Your task to perform on an android device: see tabs open on other devices in the chrome app Image 0: 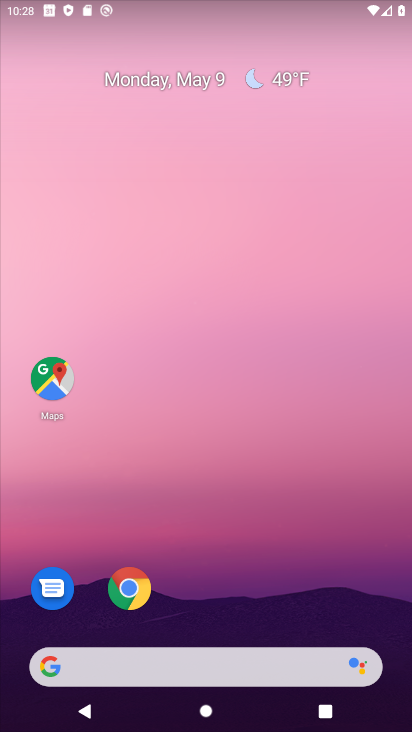
Step 0: click (128, 587)
Your task to perform on an android device: see tabs open on other devices in the chrome app Image 1: 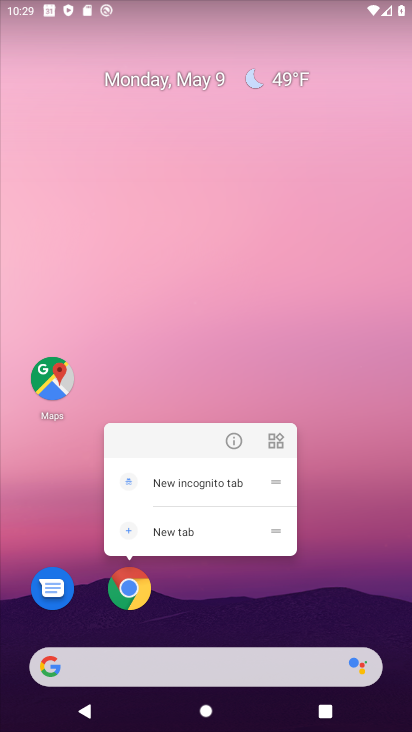
Step 1: click (132, 602)
Your task to perform on an android device: see tabs open on other devices in the chrome app Image 2: 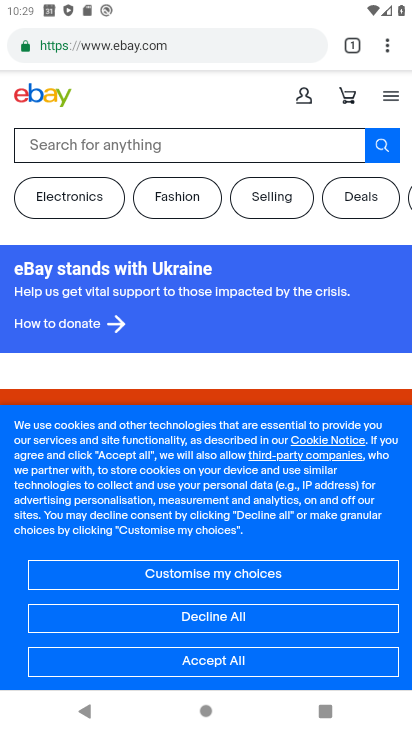
Step 2: click (389, 51)
Your task to perform on an android device: see tabs open on other devices in the chrome app Image 3: 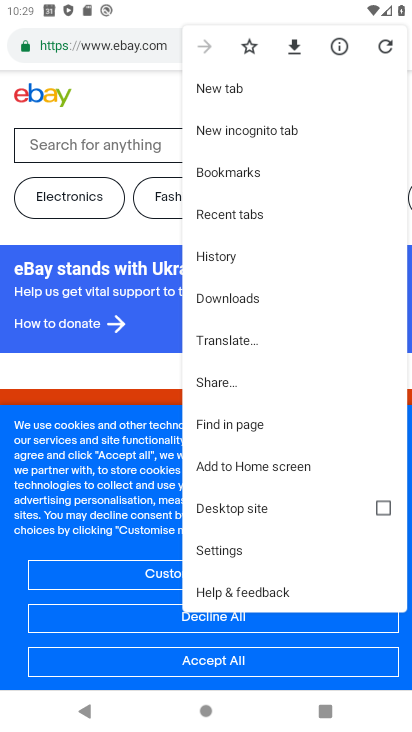
Step 3: click (230, 212)
Your task to perform on an android device: see tabs open on other devices in the chrome app Image 4: 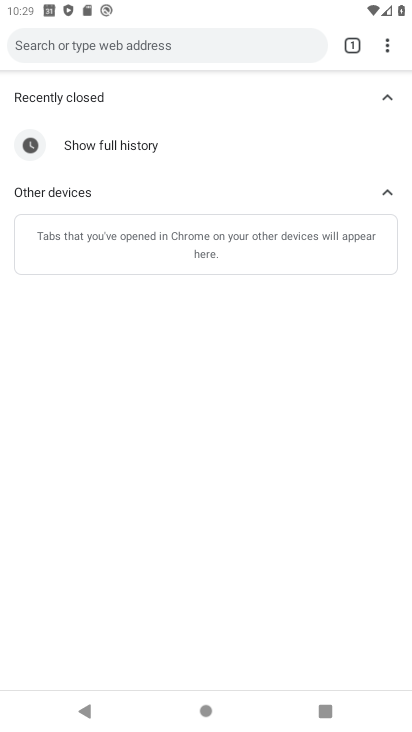
Step 4: task complete